Your task to perform on an android device: allow cookies in the chrome app Image 0: 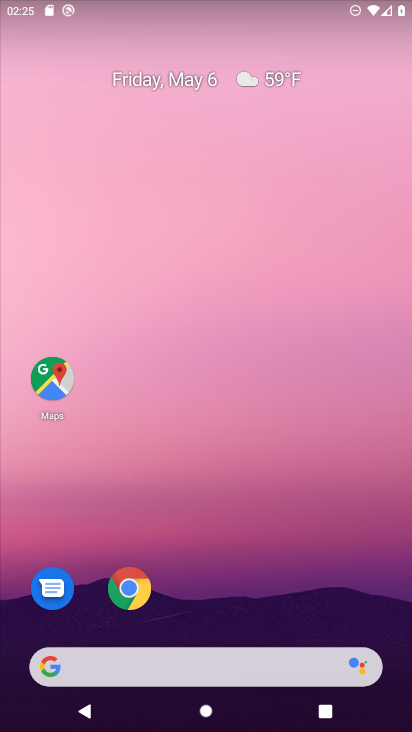
Step 0: click (138, 583)
Your task to perform on an android device: allow cookies in the chrome app Image 1: 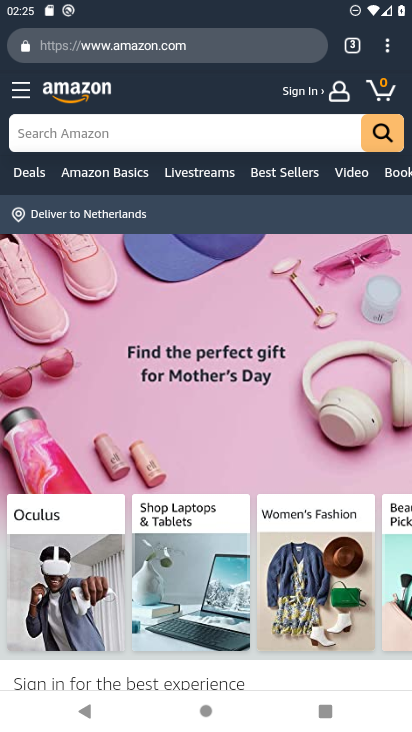
Step 1: click (381, 51)
Your task to perform on an android device: allow cookies in the chrome app Image 2: 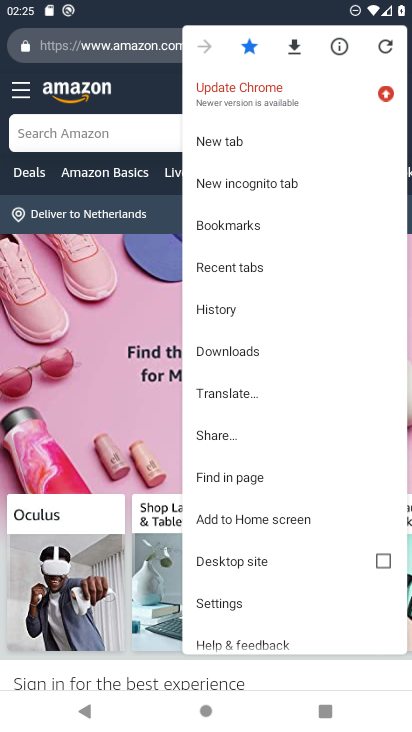
Step 2: click (205, 602)
Your task to perform on an android device: allow cookies in the chrome app Image 3: 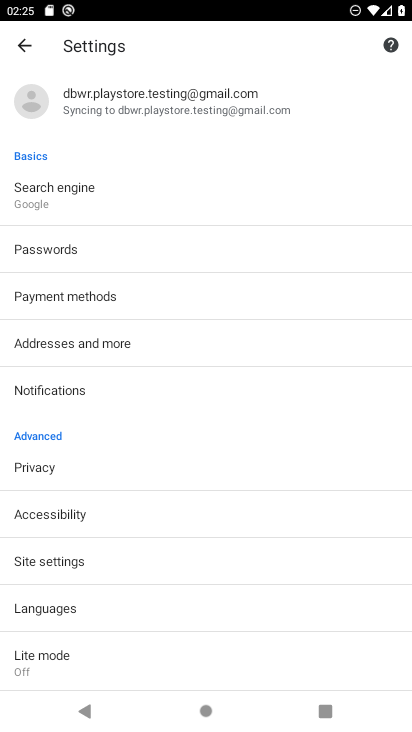
Step 3: drag from (67, 668) to (259, 111)
Your task to perform on an android device: allow cookies in the chrome app Image 4: 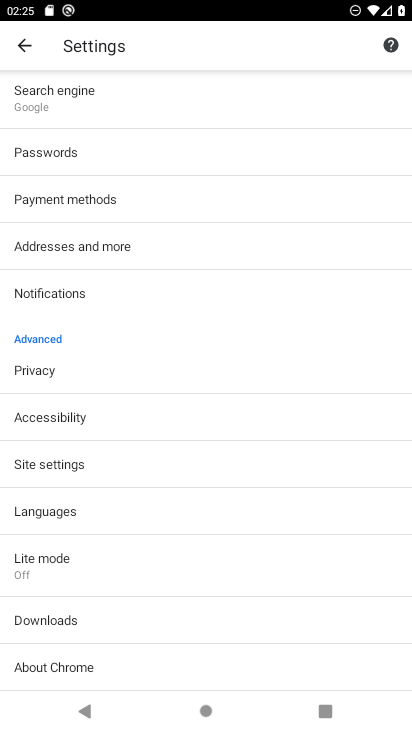
Step 4: click (72, 466)
Your task to perform on an android device: allow cookies in the chrome app Image 5: 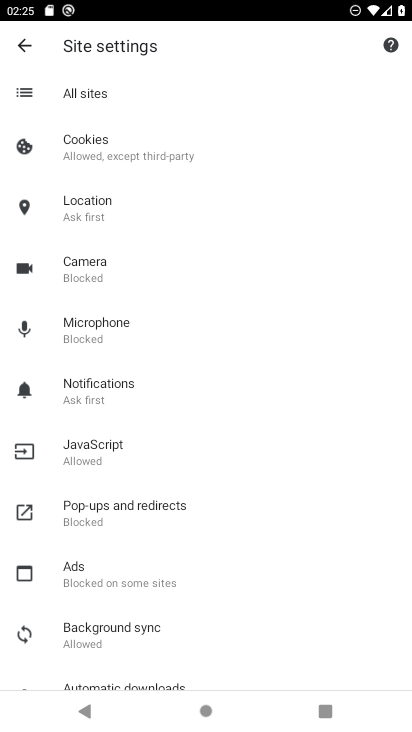
Step 5: click (169, 143)
Your task to perform on an android device: allow cookies in the chrome app Image 6: 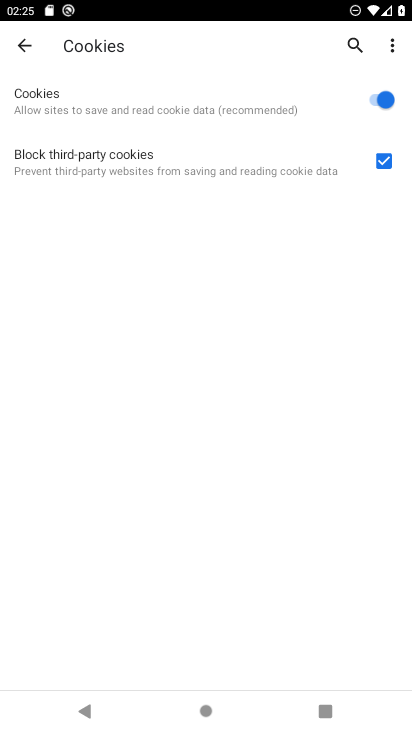
Step 6: task complete